Your task to perform on an android device: What's on my calendar today? Image 0: 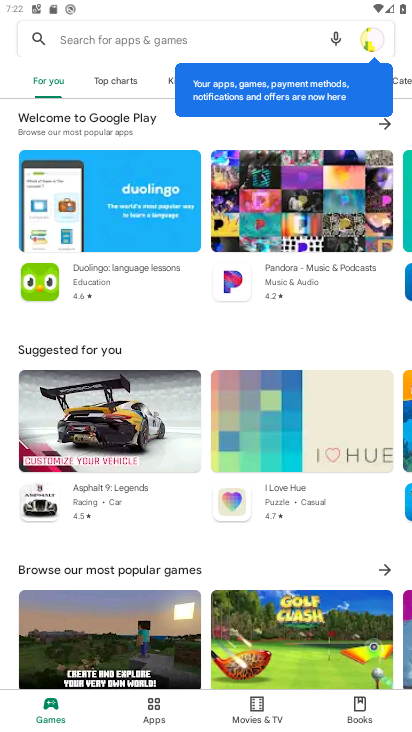
Step 0: press home button
Your task to perform on an android device: What's on my calendar today? Image 1: 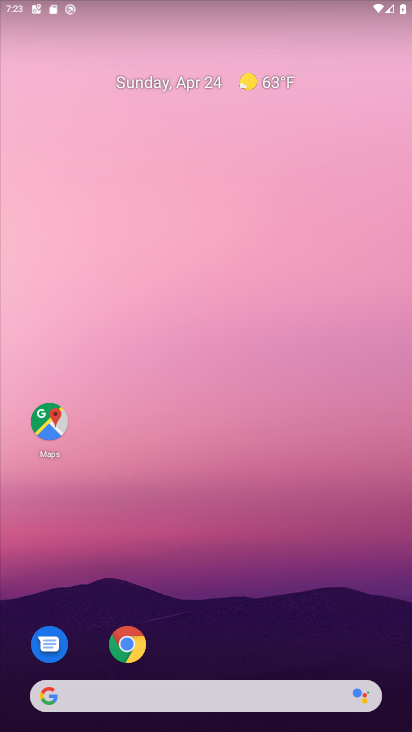
Step 1: drag from (212, 659) to (237, 76)
Your task to perform on an android device: What's on my calendar today? Image 2: 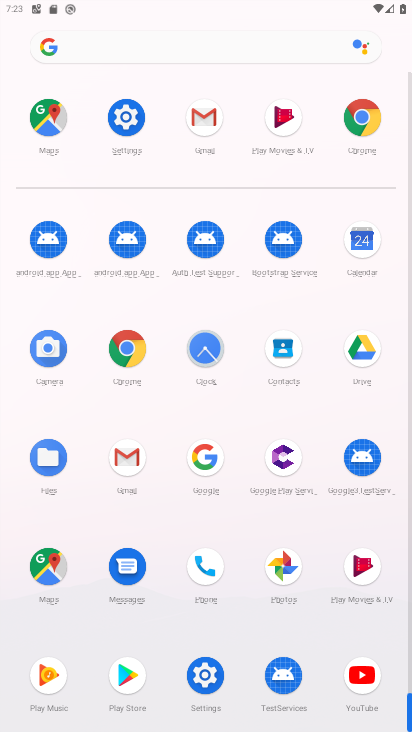
Step 2: click (362, 236)
Your task to perform on an android device: What's on my calendar today? Image 3: 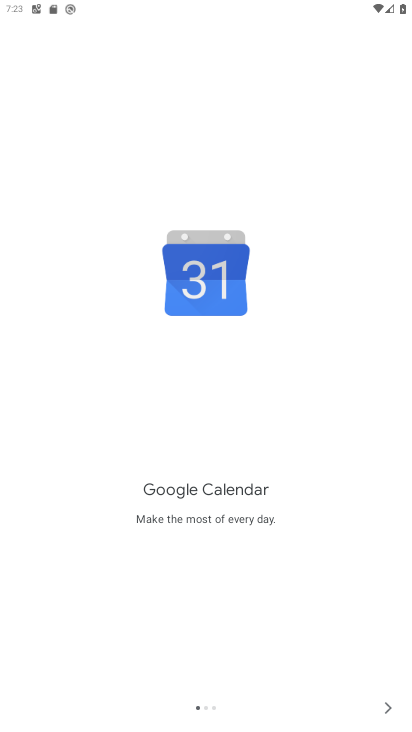
Step 3: click (386, 702)
Your task to perform on an android device: What's on my calendar today? Image 4: 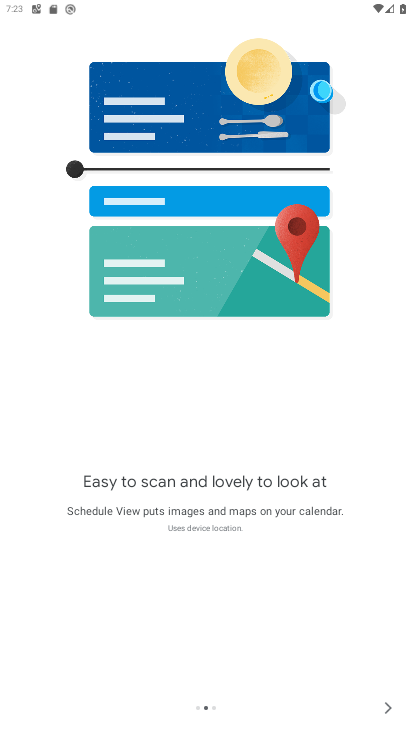
Step 4: click (386, 702)
Your task to perform on an android device: What's on my calendar today? Image 5: 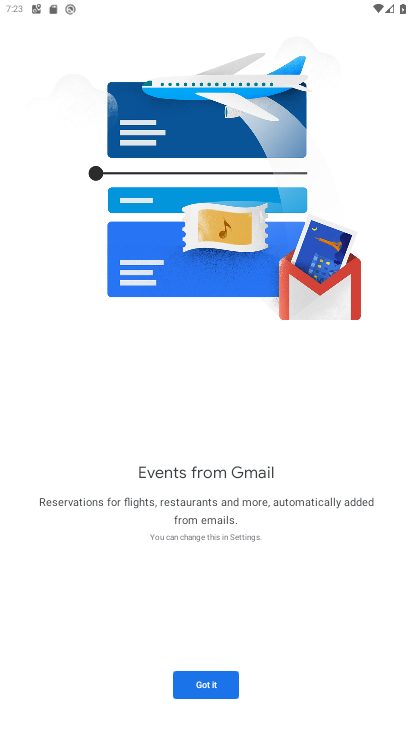
Step 5: click (204, 683)
Your task to perform on an android device: What's on my calendar today? Image 6: 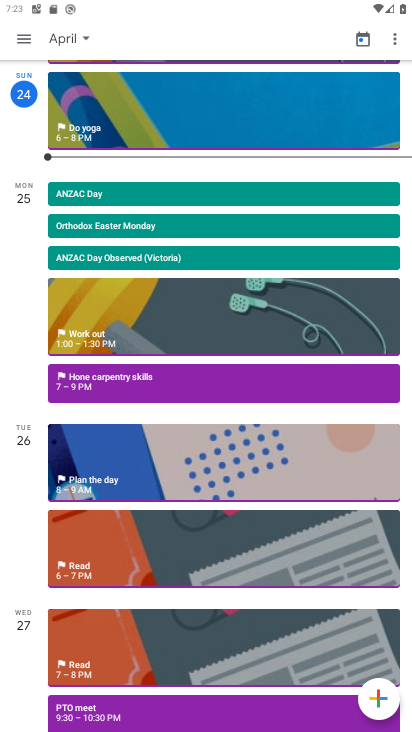
Step 6: click (23, 37)
Your task to perform on an android device: What's on my calendar today? Image 7: 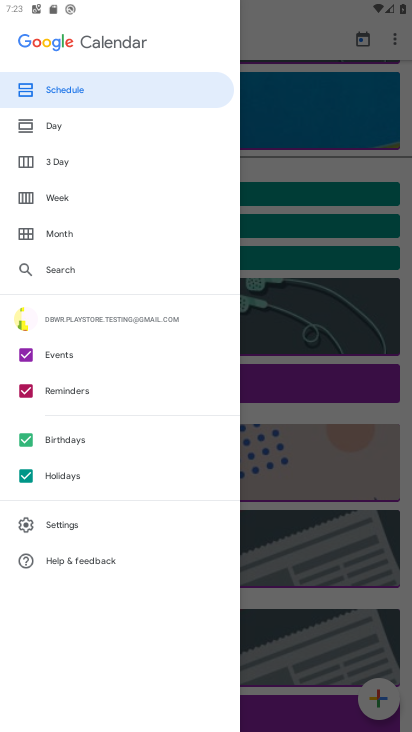
Step 7: click (66, 118)
Your task to perform on an android device: What's on my calendar today? Image 8: 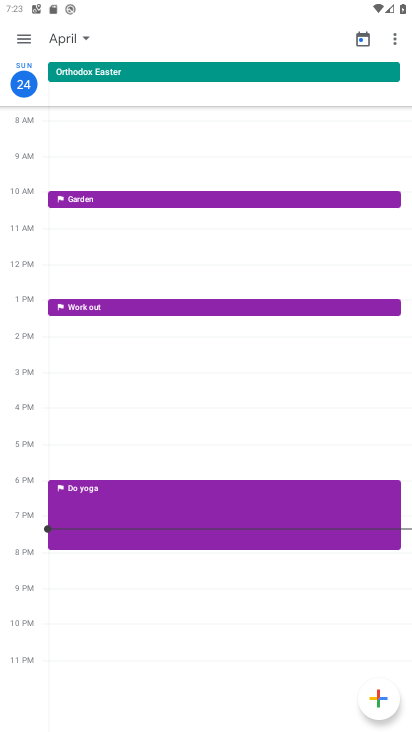
Step 8: task complete